Your task to perform on an android device: change text size in settings app Image 0: 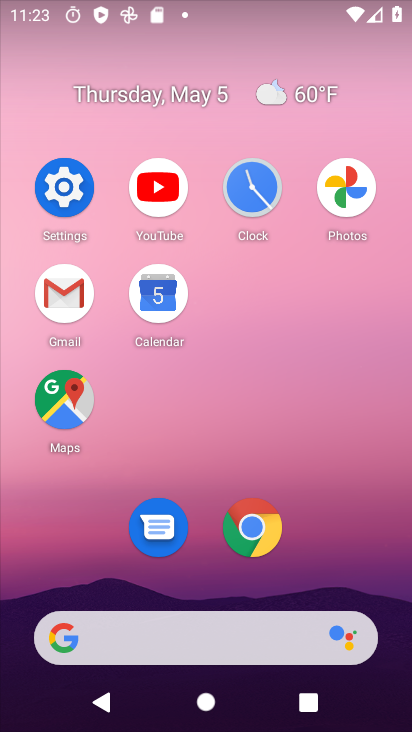
Step 0: click (88, 197)
Your task to perform on an android device: change text size in settings app Image 1: 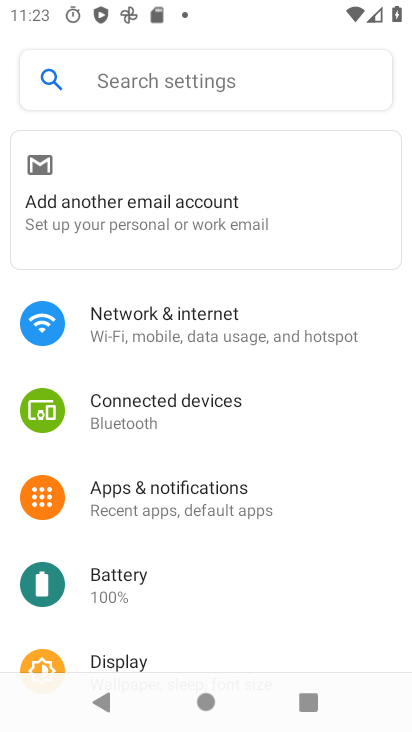
Step 1: drag from (227, 591) to (249, 205)
Your task to perform on an android device: change text size in settings app Image 2: 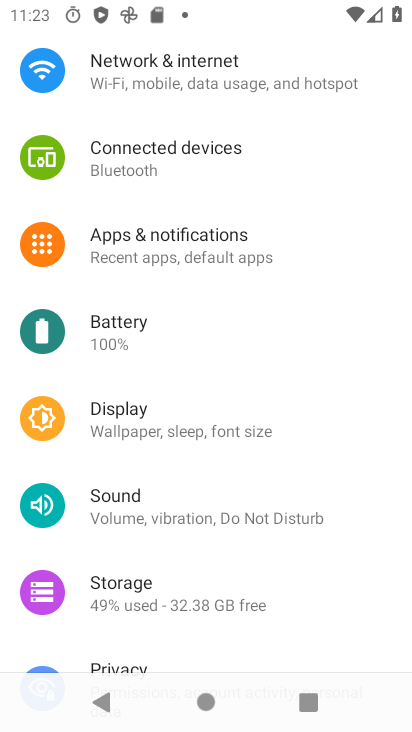
Step 2: click (262, 451)
Your task to perform on an android device: change text size in settings app Image 3: 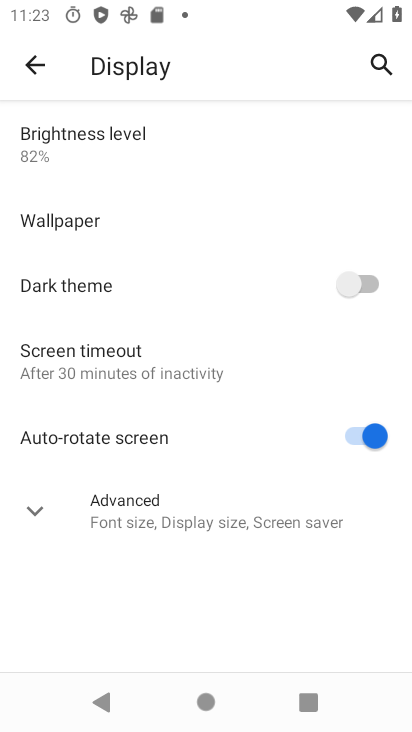
Step 3: click (190, 510)
Your task to perform on an android device: change text size in settings app Image 4: 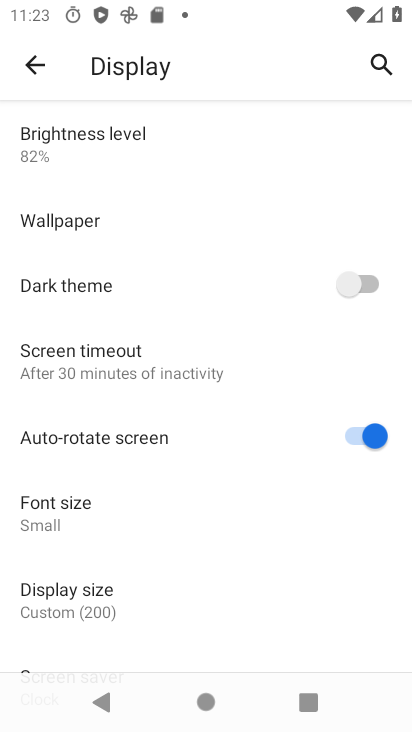
Step 4: click (149, 538)
Your task to perform on an android device: change text size in settings app Image 5: 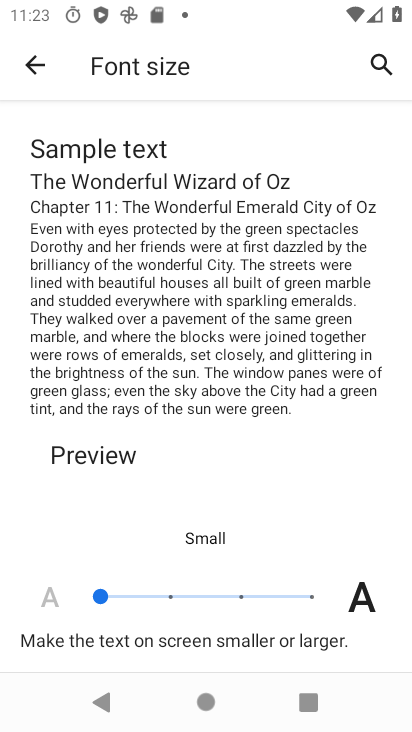
Step 5: click (167, 597)
Your task to perform on an android device: change text size in settings app Image 6: 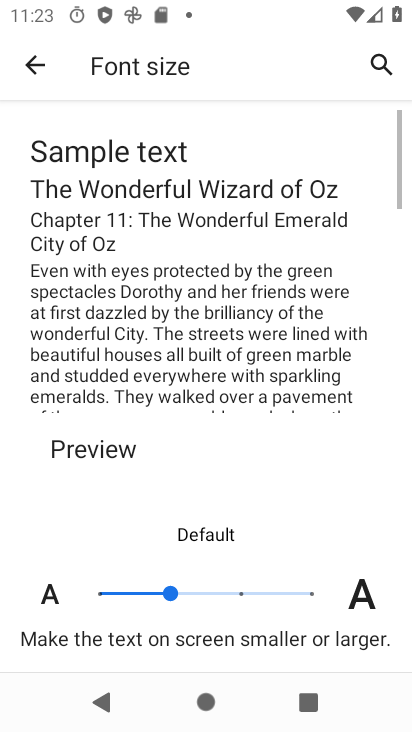
Step 6: task complete